Your task to perform on an android device: open chrome privacy settings Image 0: 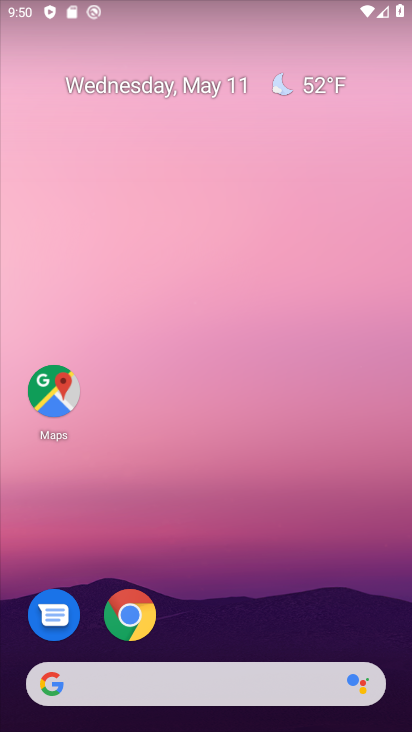
Step 0: click (132, 616)
Your task to perform on an android device: open chrome privacy settings Image 1: 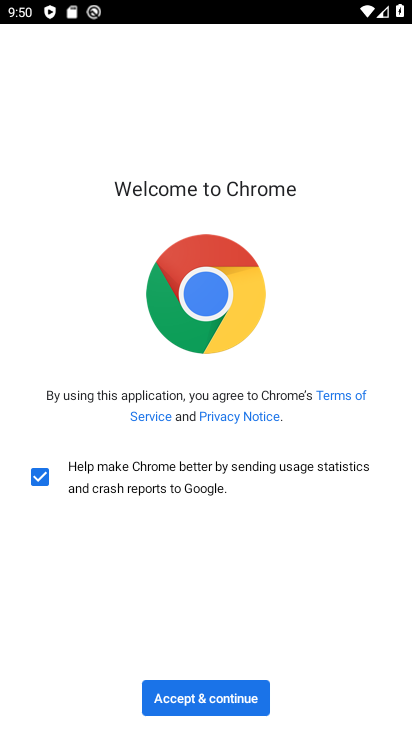
Step 1: click (201, 696)
Your task to perform on an android device: open chrome privacy settings Image 2: 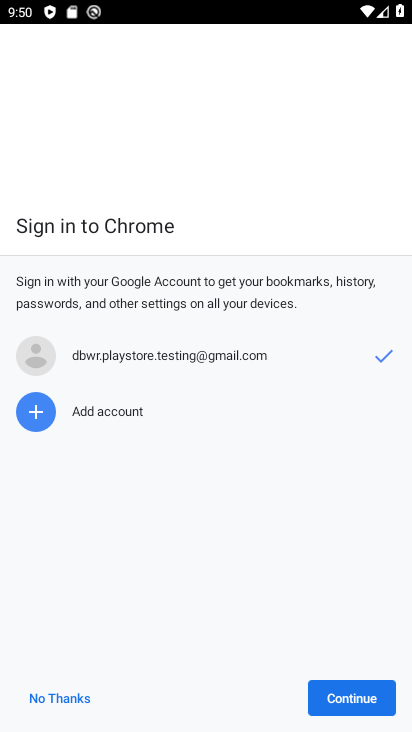
Step 2: click (360, 701)
Your task to perform on an android device: open chrome privacy settings Image 3: 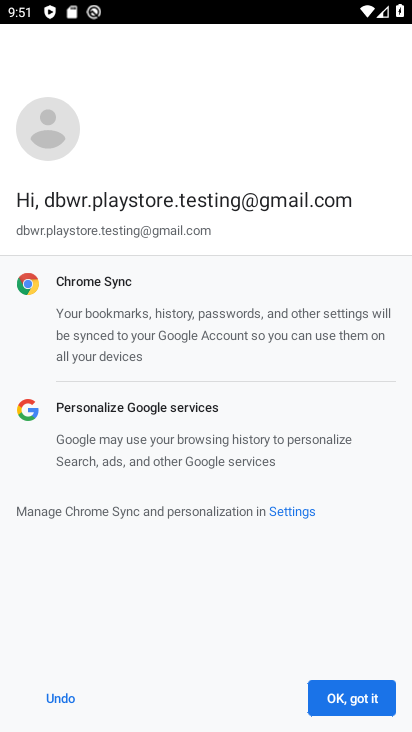
Step 3: click (360, 702)
Your task to perform on an android device: open chrome privacy settings Image 4: 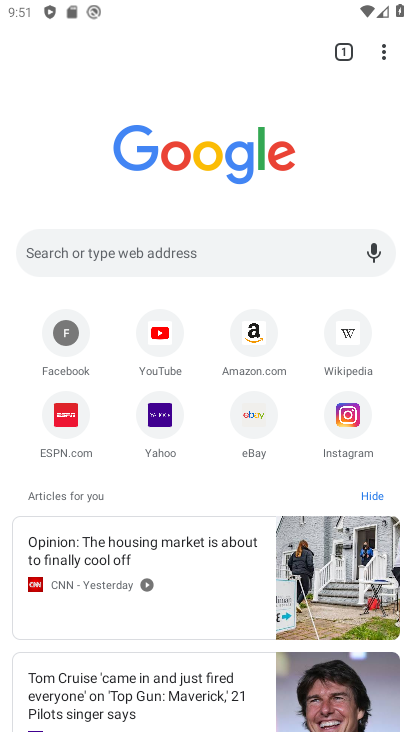
Step 4: click (385, 52)
Your task to perform on an android device: open chrome privacy settings Image 5: 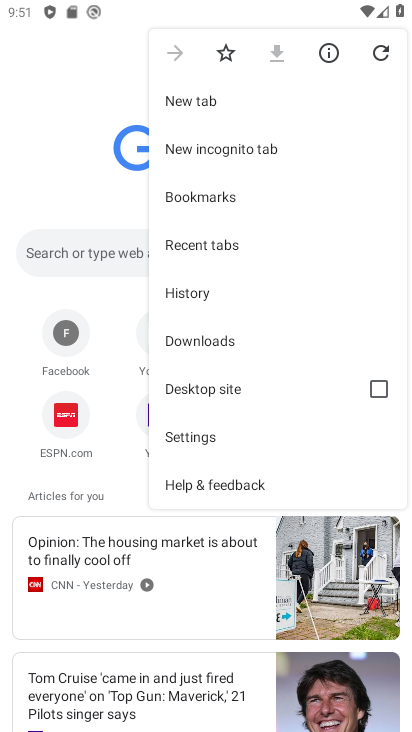
Step 5: click (190, 441)
Your task to perform on an android device: open chrome privacy settings Image 6: 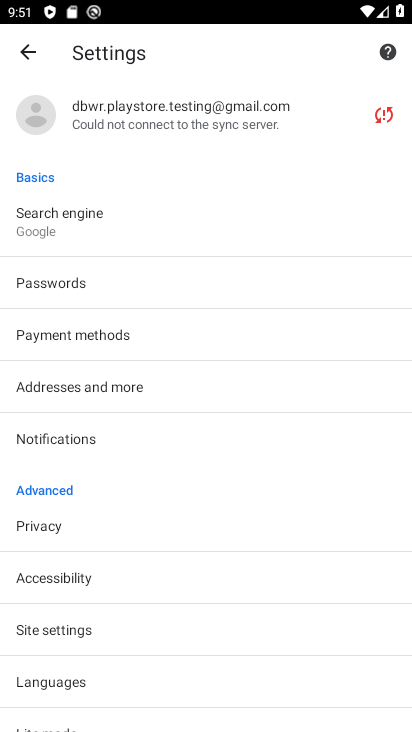
Step 6: click (41, 523)
Your task to perform on an android device: open chrome privacy settings Image 7: 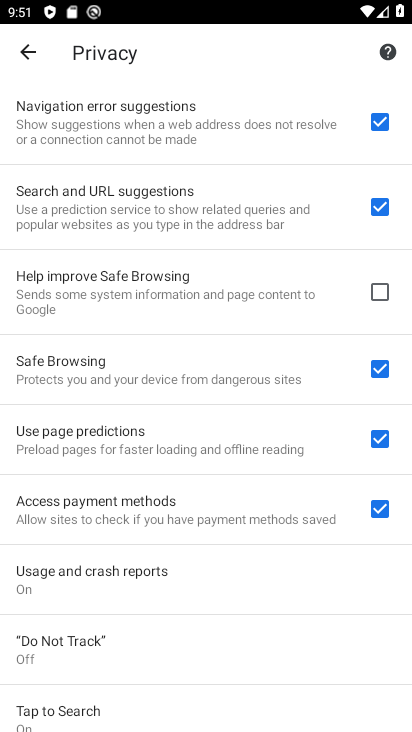
Step 7: task complete